Your task to perform on an android device: Search for dell xps on walmart, select the first entry, and add it to the cart. Image 0: 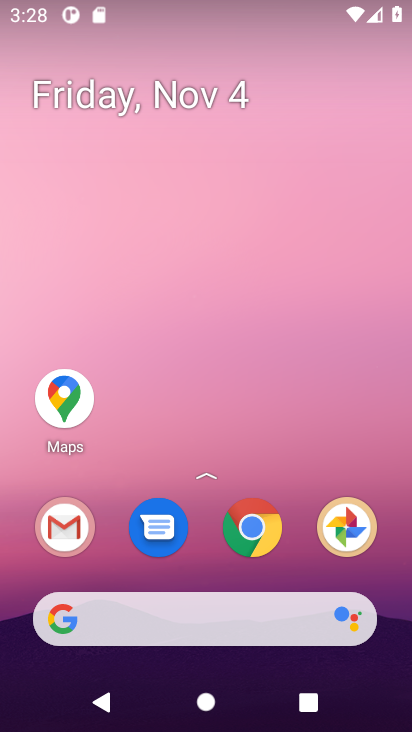
Step 0: click (254, 522)
Your task to perform on an android device: Search for dell xps on walmart, select the first entry, and add it to the cart. Image 1: 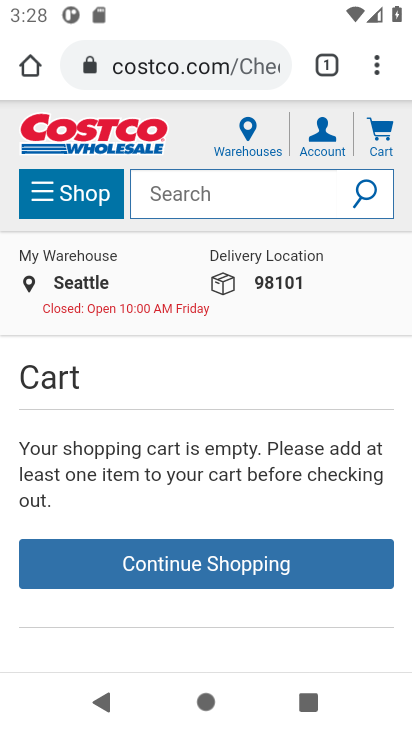
Step 1: click (174, 72)
Your task to perform on an android device: Search for dell xps on walmart, select the first entry, and add it to the cart. Image 2: 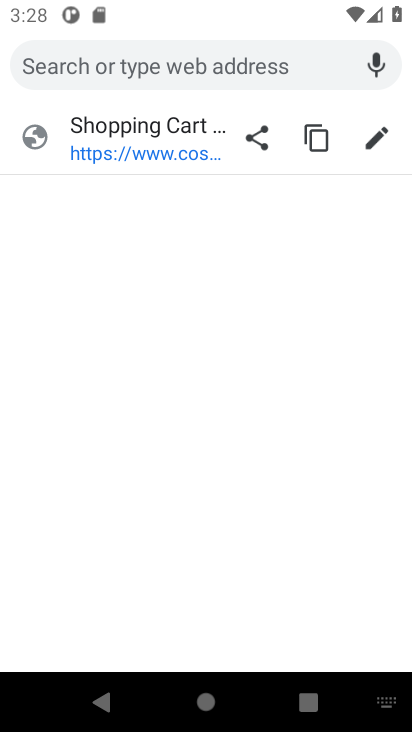
Step 2: type "walmart"
Your task to perform on an android device: Search for dell xps on walmart, select the first entry, and add it to the cart. Image 3: 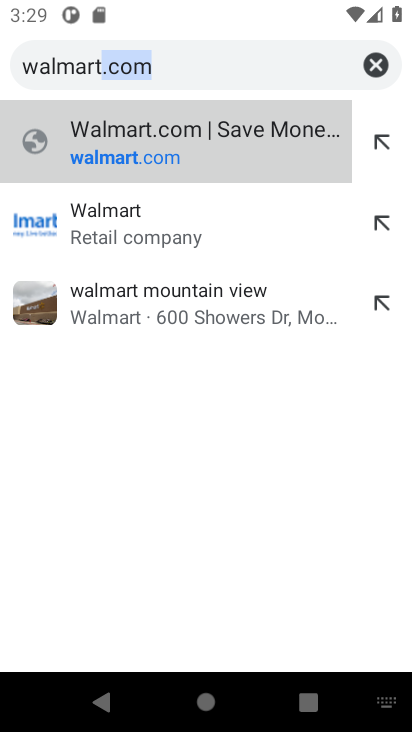
Step 3: click (184, 59)
Your task to perform on an android device: Search for dell xps on walmart, select the first entry, and add it to the cart. Image 4: 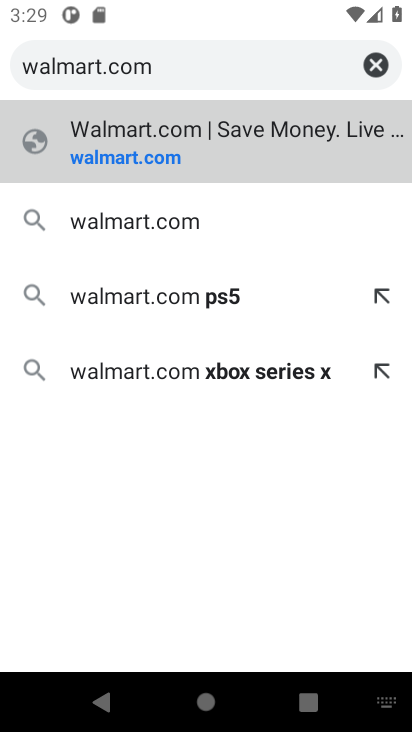
Step 4: click (164, 233)
Your task to perform on an android device: Search for dell xps on walmart, select the first entry, and add it to the cart. Image 5: 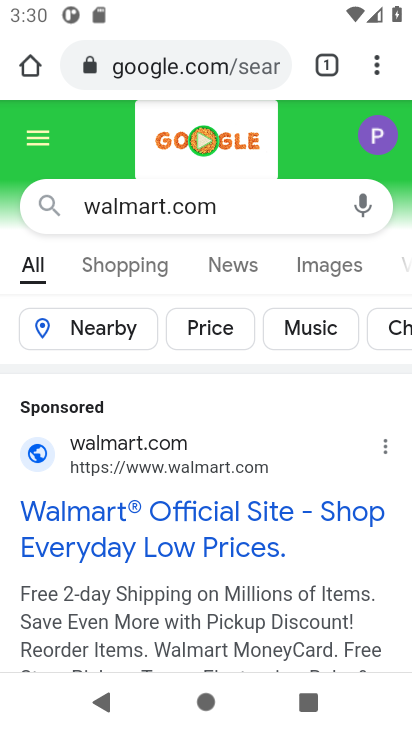
Step 5: drag from (189, 466) to (221, 8)
Your task to perform on an android device: Search for dell xps on walmart, select the first entry, and add it to the cart. Image 6: 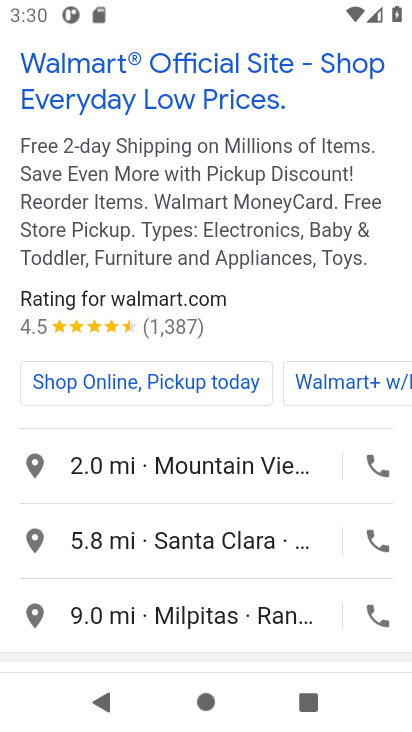
Step 6: drag from (200, 450) to (233, 201)
Your task to perform on an android device: Search for dell xps on walmart, select the first entry, and add it to the cart. Image 7: 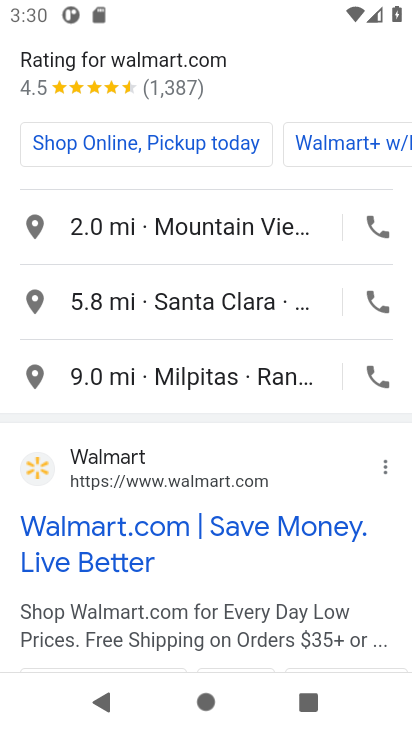
Step 7: click (197, 482)
Your task to perform on an android device: Search for dell xps on walmart, select the first entry, and add it to the cart. Image 8: 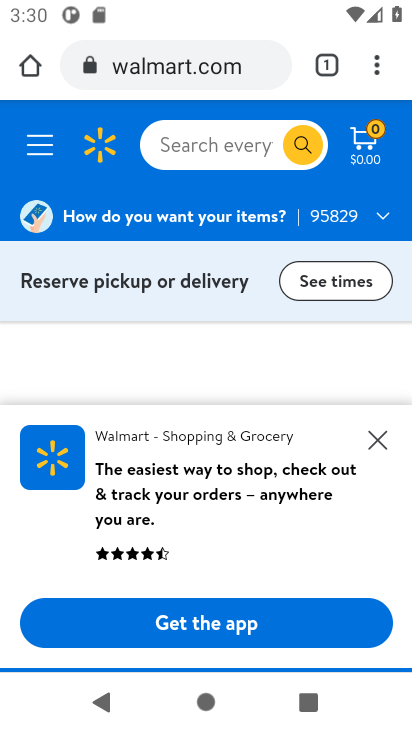
Step 8: click (226, 135)
Your task to perform on an android device: Search for dell xps on walmart, select the first entry, and add it to the cart. Image 9: 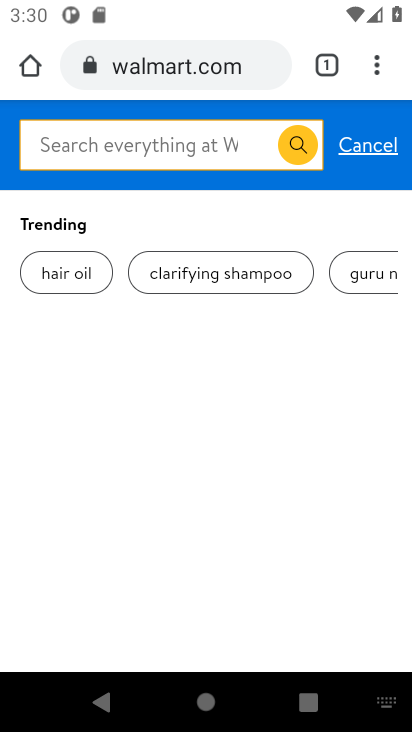
Step 9: type "dell xps"
Your task to perform on an android device: Search for dell xps on walmart, select the first entry, and add it to the cart. Image 10: 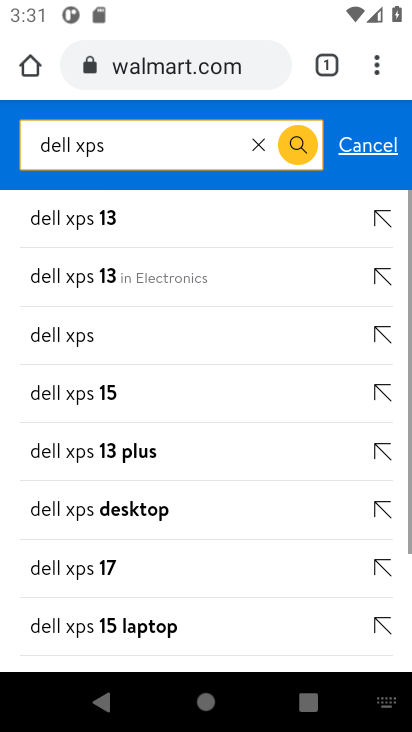
Step 10: click (77, 333)
Your task to perform on an android device: Search for dell xps on walmart, select the first entry, and add it to the cart. Image 11: 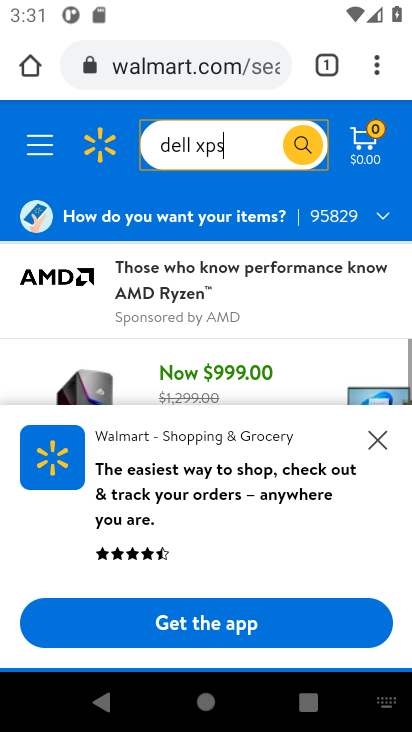
Step 11: click (370, 441)
Your task to perform on an android device: Search for dell xps on walmart, select the first entry, and add it to the cart. Image 12: 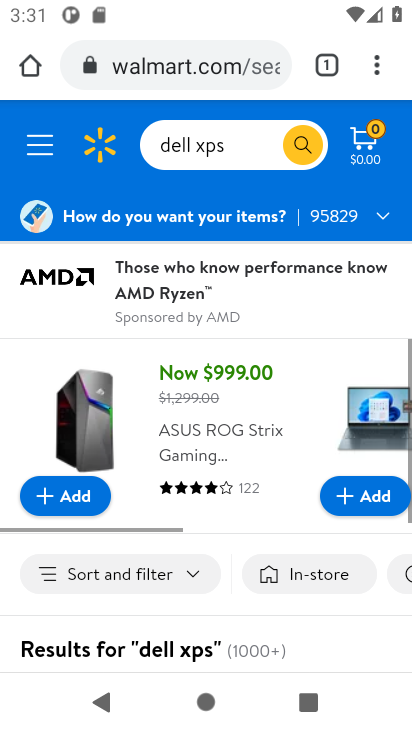
Step 12: drag from (214, 508) to (210, 283)
Your task to perform on an android device: Search for dell xps on walmart, select the first entry, and add it to the cart. Image 13: 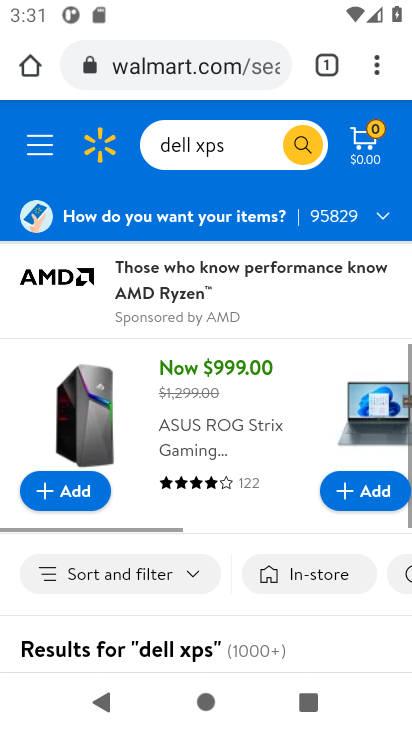
Step 13: drag from (232, 423) to (277, 183)
Your task to perform on an android device: Search for dell xps on walmart, select the first entry, and add it to the cart. Image 14: 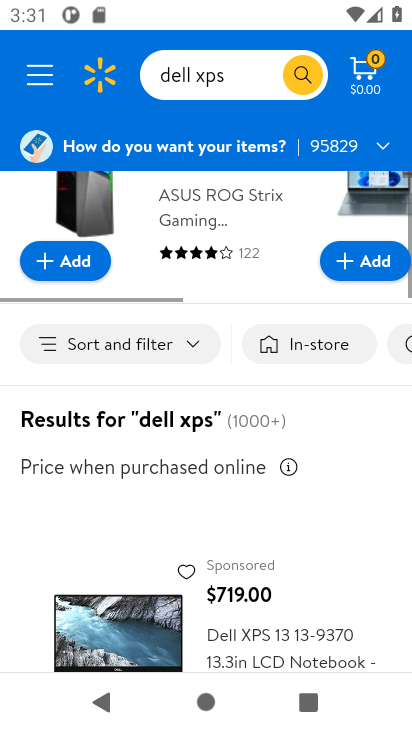
Step 14: drag from (259, 288) to (268, 524)
Your task to perform on an android device: Search for dell xps on walmart, select the first entry, and add it to the cart. Image 15: 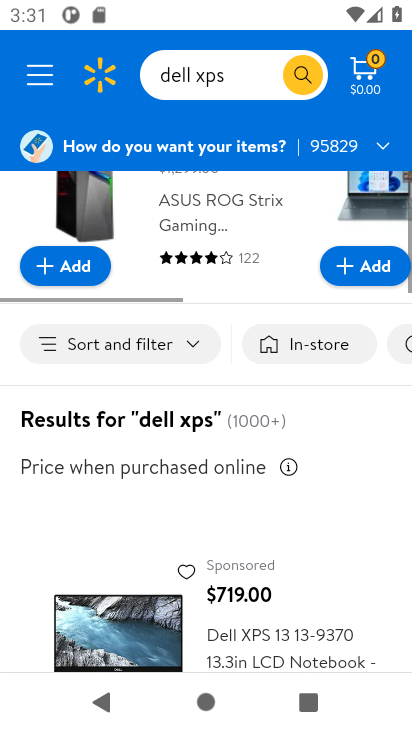
Step 15: drag from (274, 547) to (293, 370)
Your task to perform on an android device: Search for dell xps on walmart, select the first entry, and add it to the cart. Image 16: 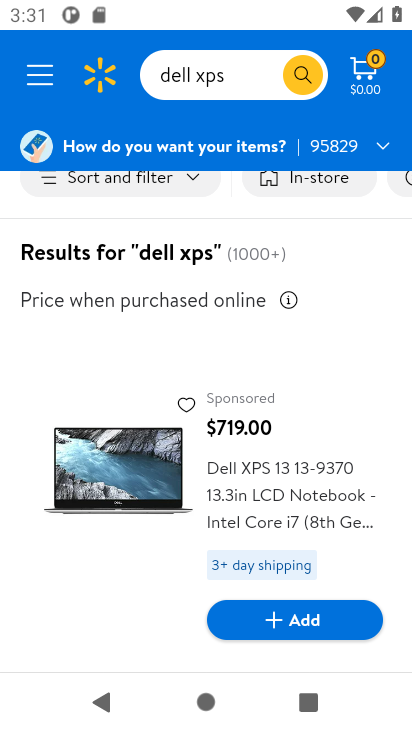
Step 16: click (146, 455)
Your task to perform on an android device: Search for dell xps on walmart, select the first entry, and add it to the cart. Image 17: 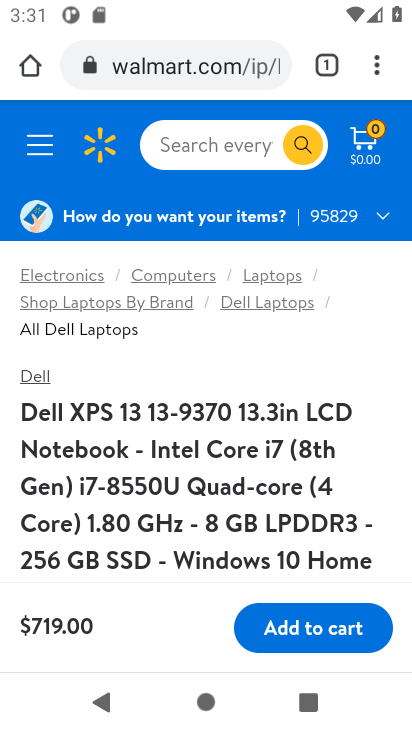
Step 17: click (307, 622)
Your task to perform on an android device: Search for dell xps on walmart, select the first entry, and add it to the cart. Image 18: 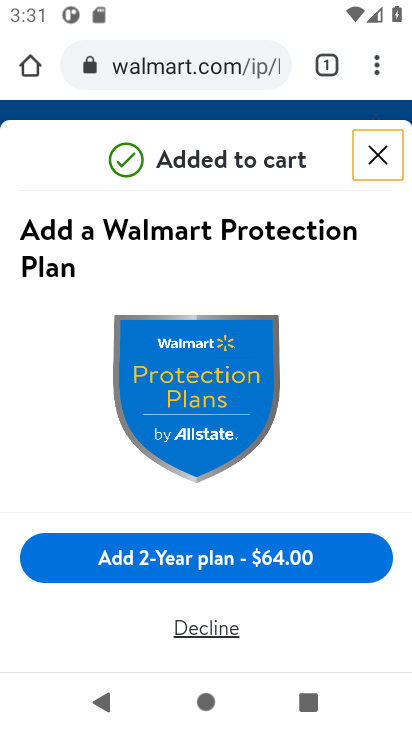
Step 18: click (388, 159)
Your task to perform on an android device: Search for dell xps on walmart, select the first entry, and add it to the cart. Image 19: 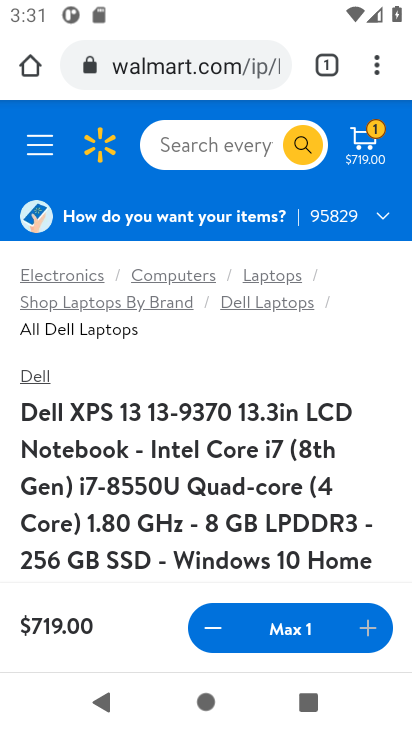
Step 19: task complete